Your task to perform on an android device: turn on location history Image 0: 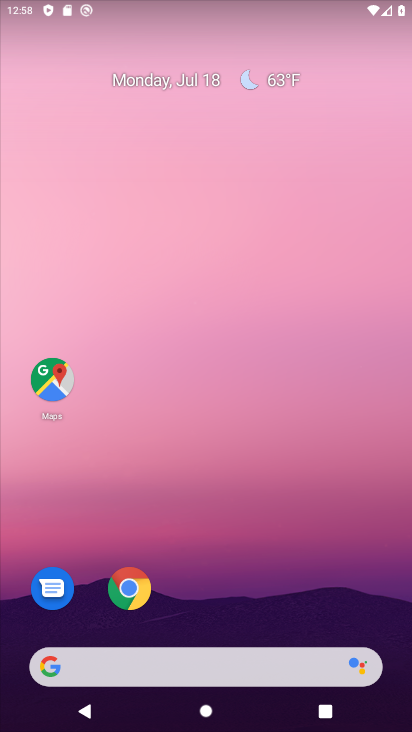
Step 0: drag from (195, 655) to (156, 196)
Your task to perform on an android device: turn on location history Image 1: 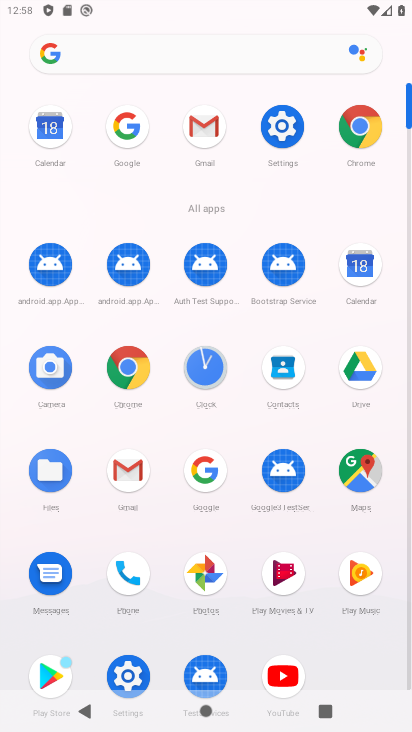
Step 1: click (273, 150)
Your task to perform on an android device: turn on location history Image 2: 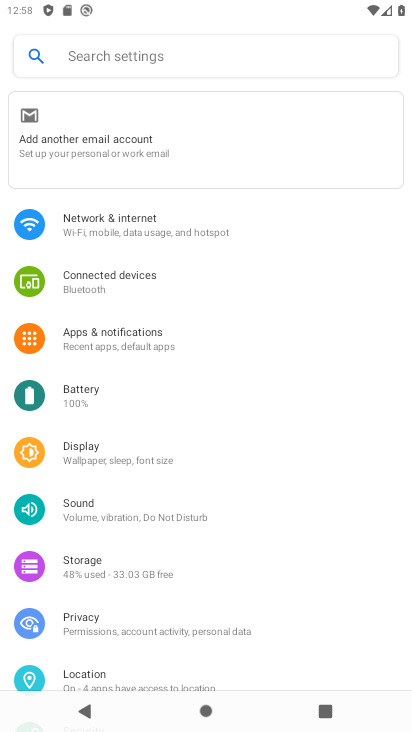
Step 2: click (83, 673)
Your task to perform on an android device: turn on location history Image 3: 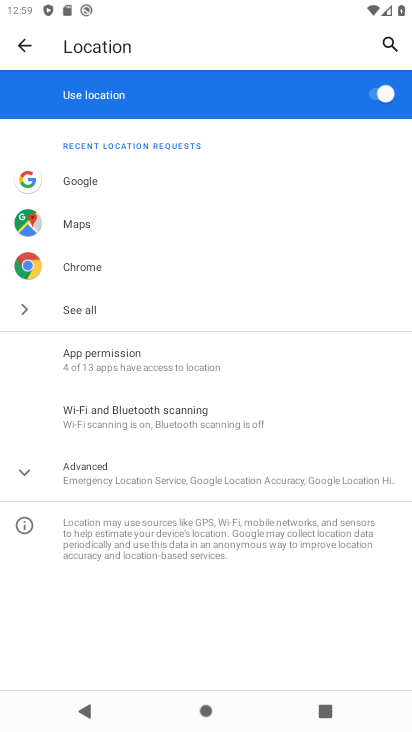
Step 3: click (106, 471)
Your task to perform on an android device: turn on location history Image 4: 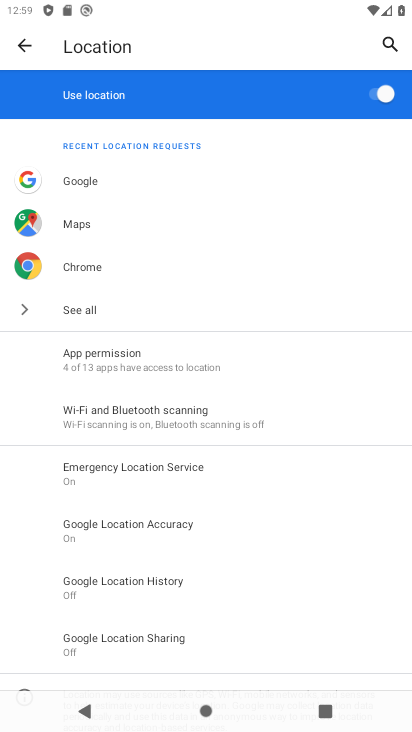
Step 4: click (191, 578)
Your task to perform on an android device: turn on location history Image 5: 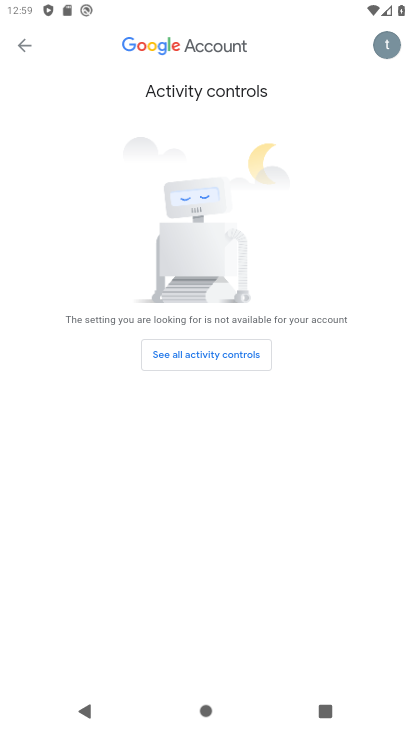
Step 5: task complete